Your task to perform on an android device: Go to Yahoo.com Image 0: 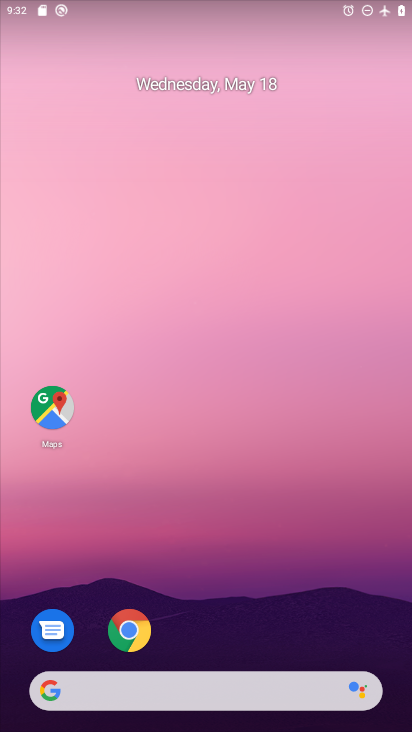
Step 0: click (112, 635)
Your task to perform on an android device: Go to Yahoo.com Image 1: 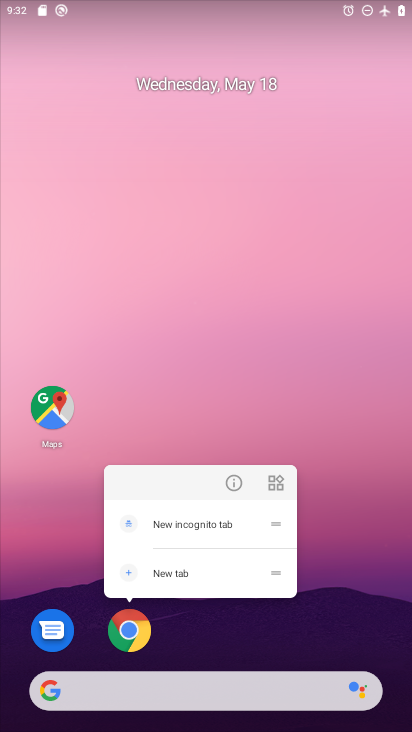
Step 1: click (138, 629)
Your task to perform on an android device: Go to Yahoo.com Image 2: 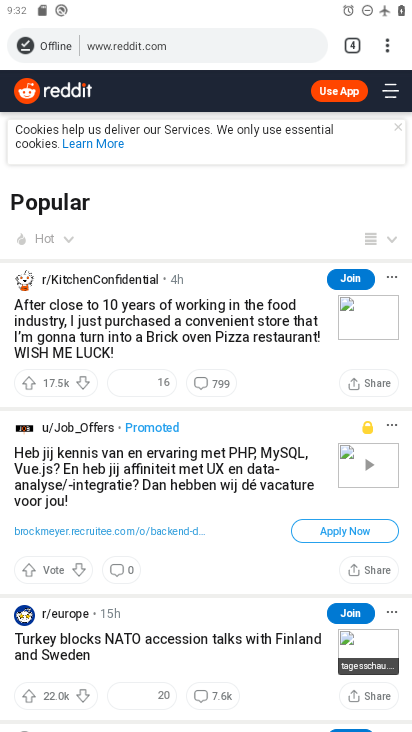
Step 2: click (353, 39)
Your task to perform on an android device: Go to Yahoo.com Image 3: 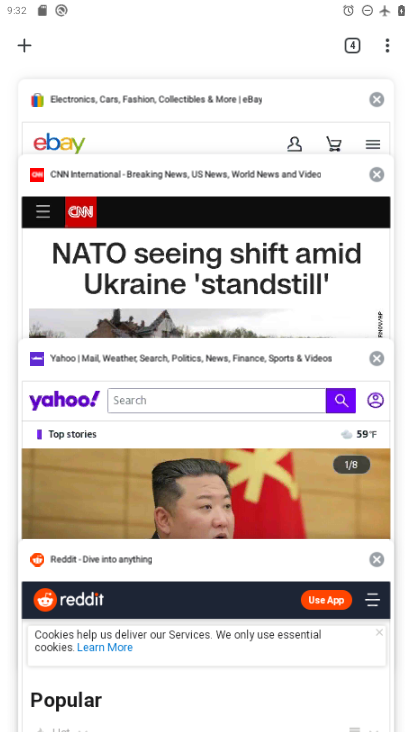
Step 3: click (141, 415)
Your task to perform on an android device: Go to Yahoo.com Image 4: 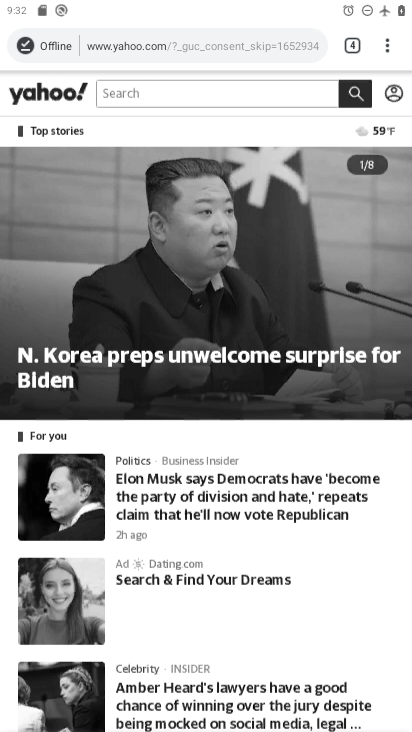
Step 4: task complete